Your task to perform on an android device: Go to Yahoo.com Image 0: 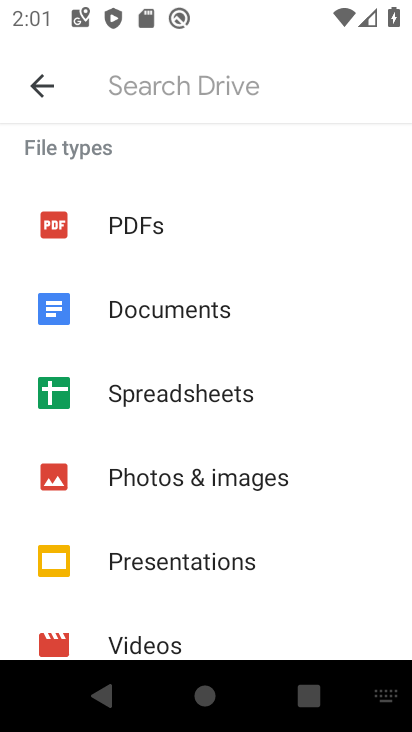
Step 0: press home button
Your task to perform on an android device: Go to Yahoo.com Image 1: 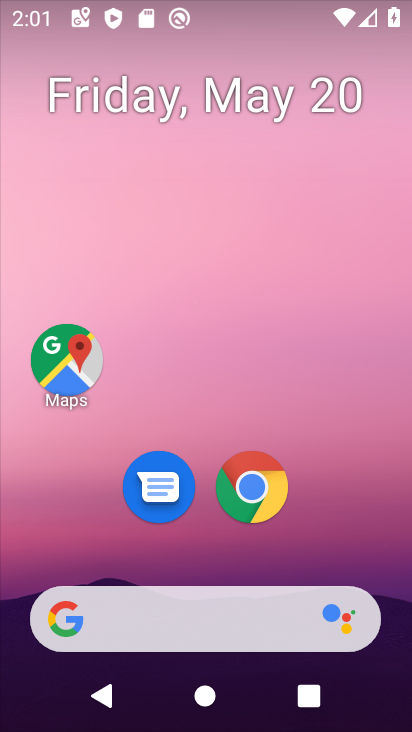
Step 1: click (252, 479)
Your task to perform on an android device: Go to Yahoo.com Image 2: 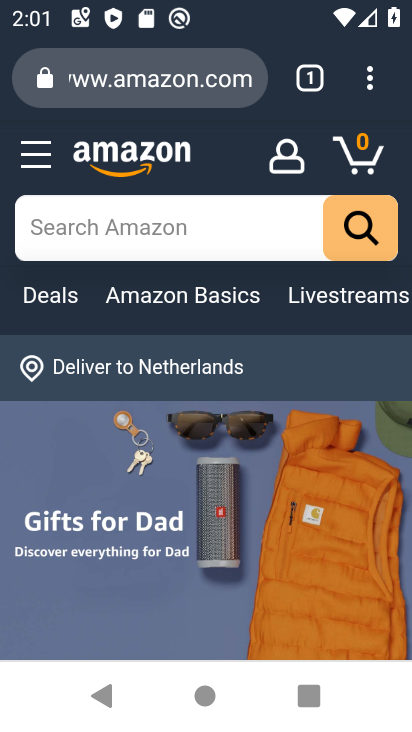
Step 2: click (151, 43)
Your task to perform on an android device: Go to Yahoo.com Image 3: 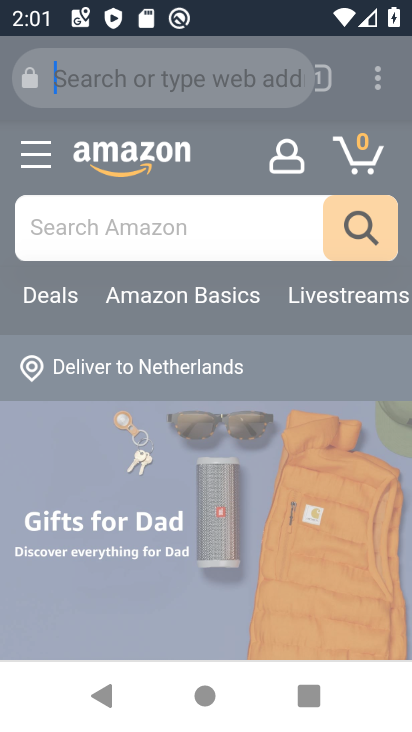
Step 3: click (152, 76)
Your task to perform on an android device: Go to Yahoo.com Image 4: 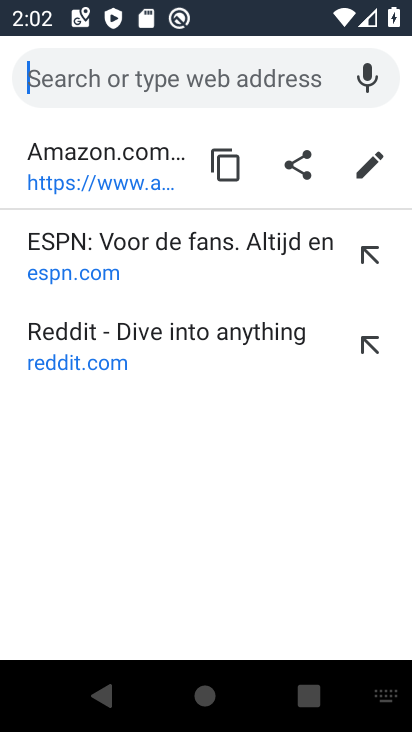
Step 4: type "yahoo"
Your task to perform on an android device: Go to Yahoo.com Image 5: 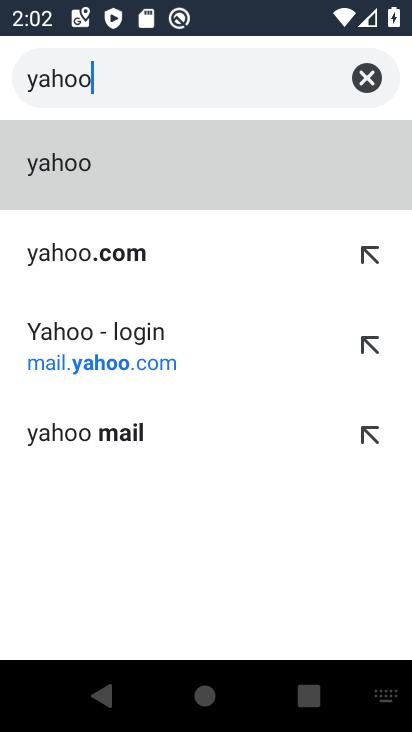
Step 5: click (90, 263)
Your task to perform on an android device: Go to Yahoo.com Image 6: 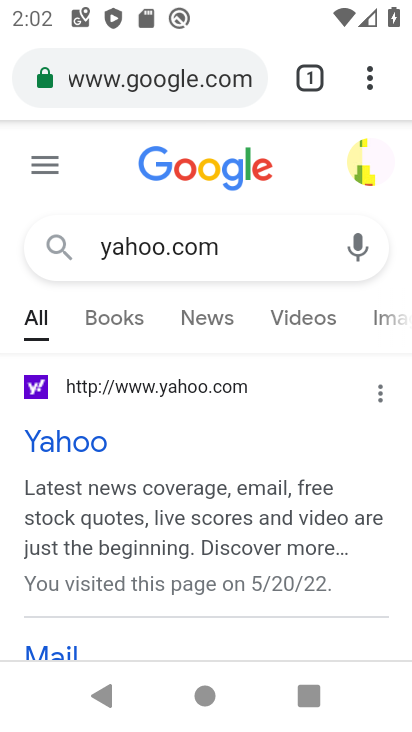
Step 6: click (71, 444)
Your task to perform on an android device: Go to Yahoo.com Image 7: 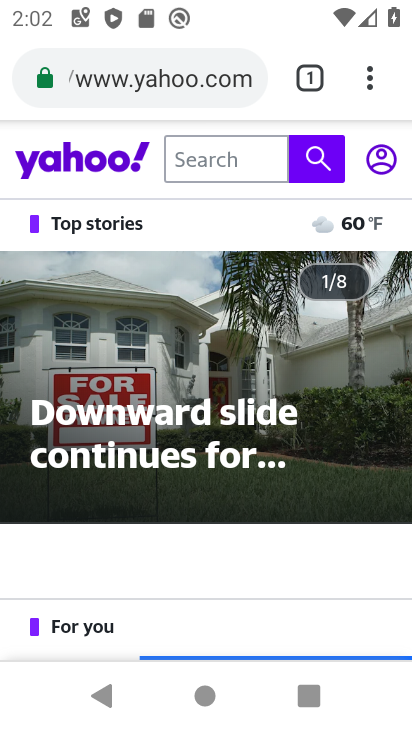
Step 7: task complete